Your task to perform on an android device: turn on airplane mode Image 0: 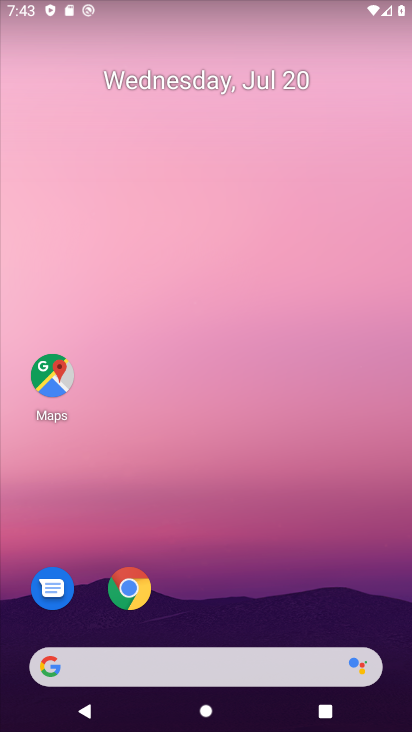
Step 0: drag from (20, 706) to (179, 10)
Your task to perform on an android device: turn on airplane mode Image 1: 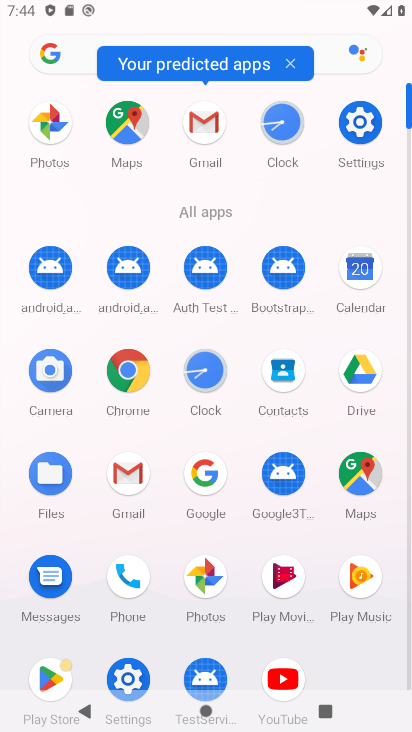
Step 1: click (118, 685)
Your task to perform on an android device: turn on airplane mode Image 2: 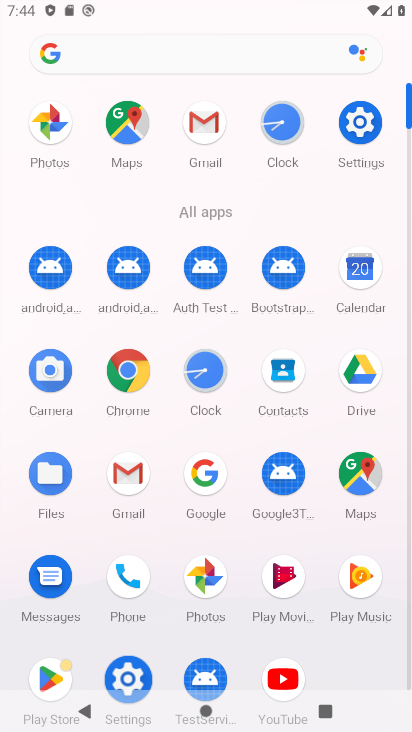
Step 2: click (122, 677)
Your task to perform on an android device: turn on airplane mode Image 3: 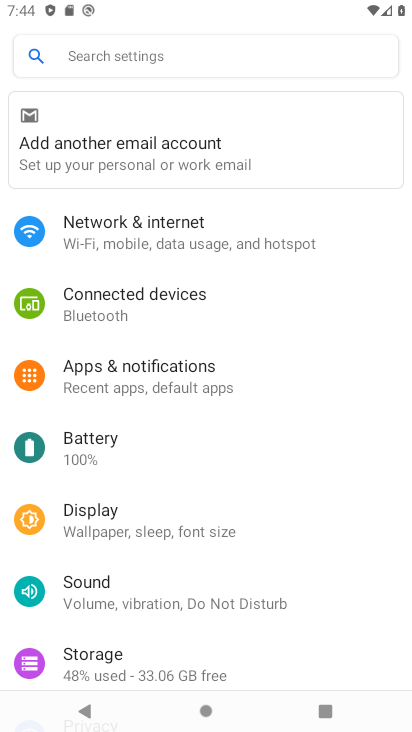
Step 3: click (163, 225)
Your task to perform on an android device: turn on airplane mode Image 4: 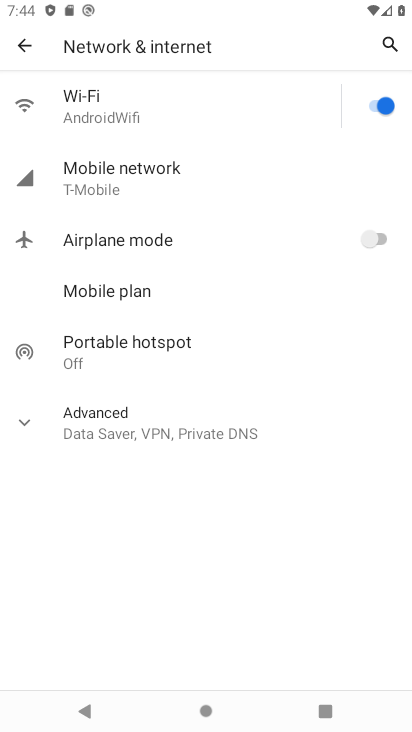
Step 4: click (133, 200)
Your task to perform on an android device: turn on airplane mode Image 5: 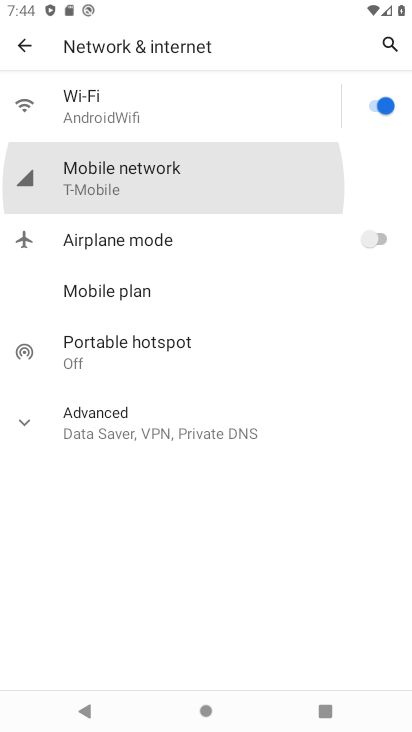
Step 5: click (126, 161)
Your task to perform on an android device: turn on airplane mode Image 6: 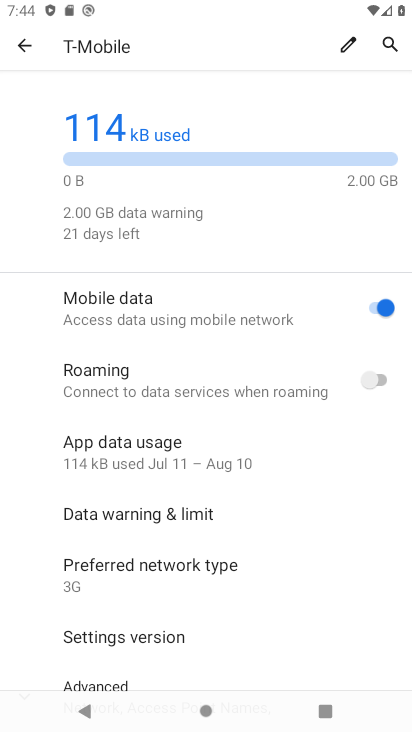
Step 6: click (26, 48)
Your task to perform on an android device: turn on airplane mode Image 7: 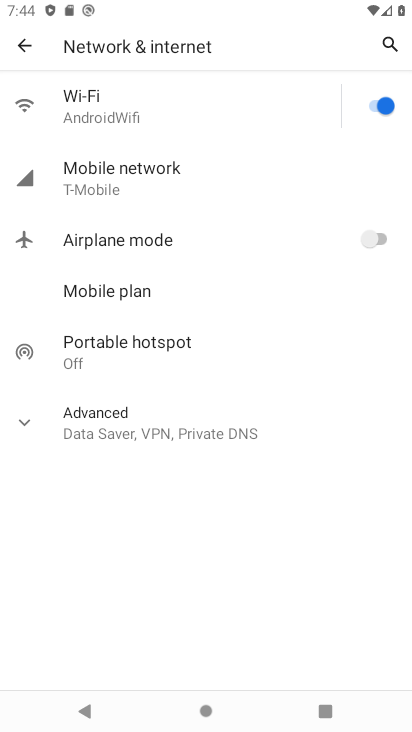
Step 7: click (377, 242)
Your task to perform on an android device: turn on airplane mode Image 8: 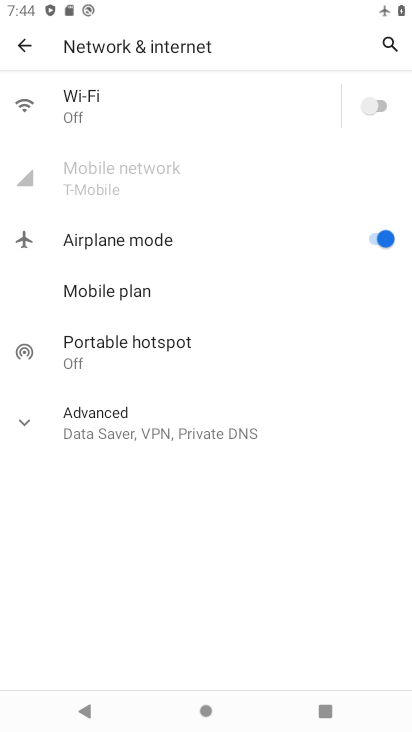
Step 8: task complete